Your task to perform on an android device: Go to Amazon Image 0: 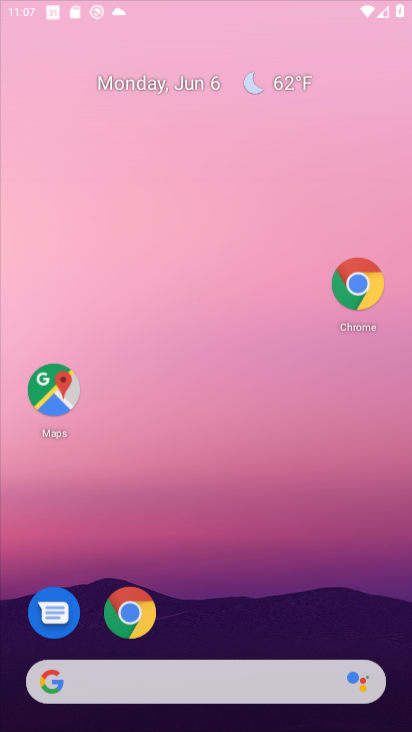
Step 0: click (25, 47)
Your task to perform on an android device: Go to Amazon Image 1: 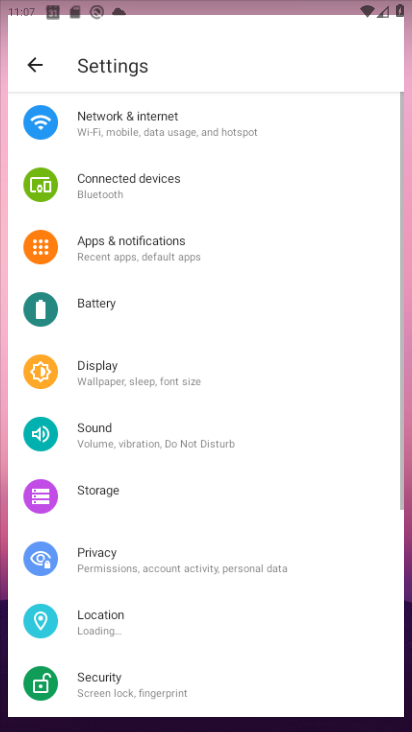
Step 1: drag from (272, 659) to (207, 66)
Your task to perform on an android device: Go to Amazon Image 2: 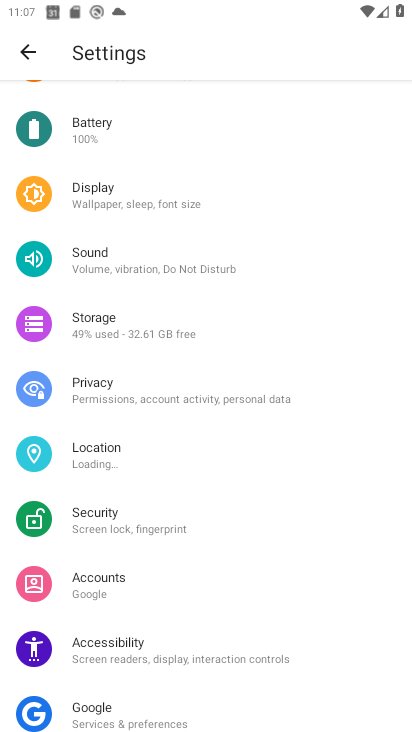
Step 2: press back button
Your task to perform on an android device: Go to Amazon Image 3: 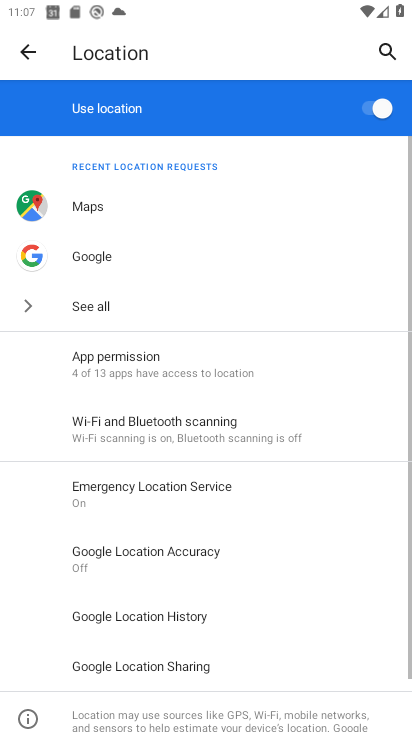
Step 3: click (35, 57)
Your task to perform on an android device: Go to Amazon Image 4: 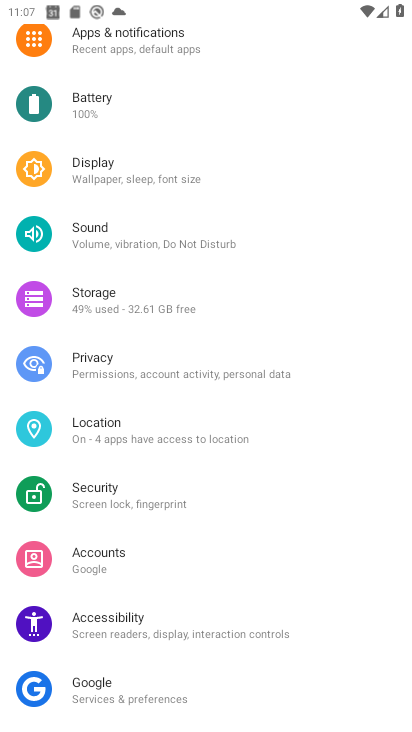
Step 4: press back button
Your task to perform on an android device: Go to Amazon Image 5: 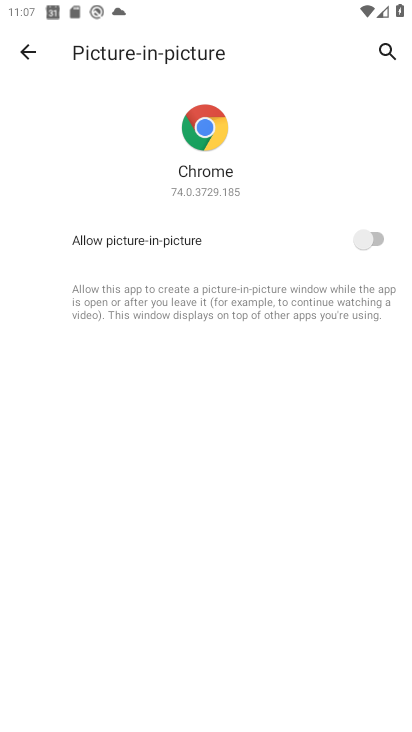
Step 5: click (27, 53)
Your task to perform on an android device: Go to Amazon Image 6: 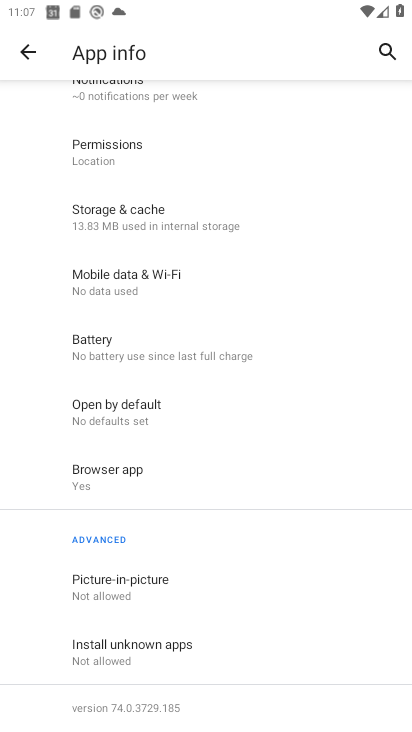
Step 6: click (29, 58)
Your task to perform on an android device: Go to Amazon Image 7: 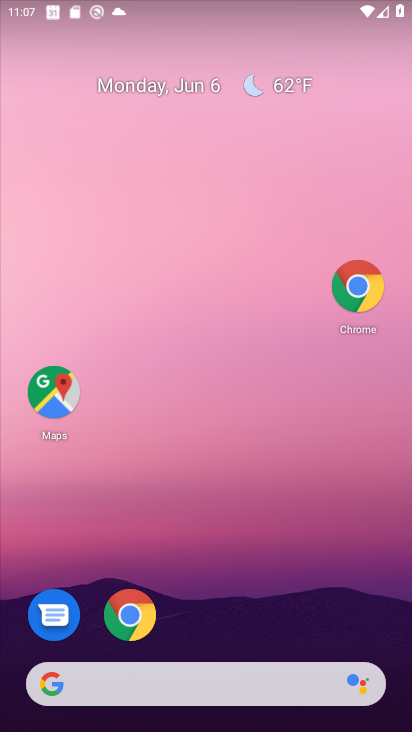
Step 7: drag from (219, 218) to (219, 123)
Your task to perform on an android device: Go to Amazon Image 8: 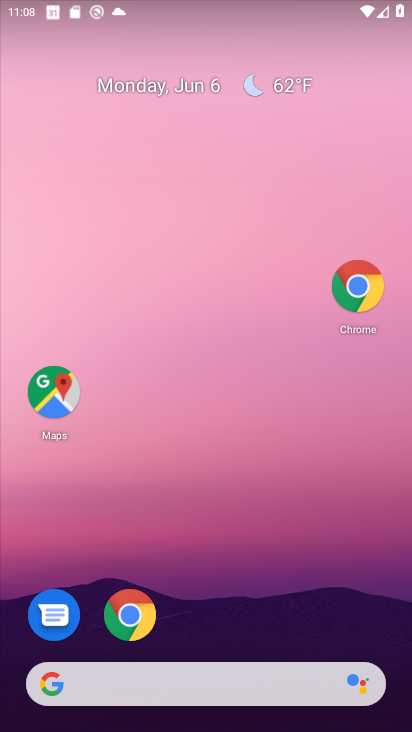
Step 8: drag from (283, 705) to (233, 242)
Your task to perform on an android device: Go to Amazon Image 9: 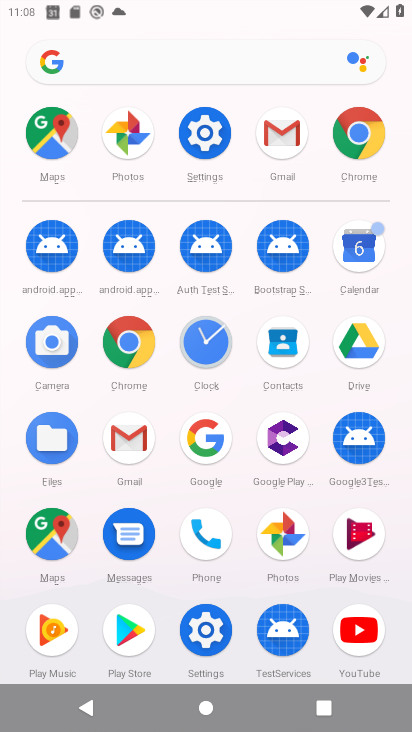
Step 9: click (364, 126)
Your task to perform on an android device: Go to Amazon Image 10: 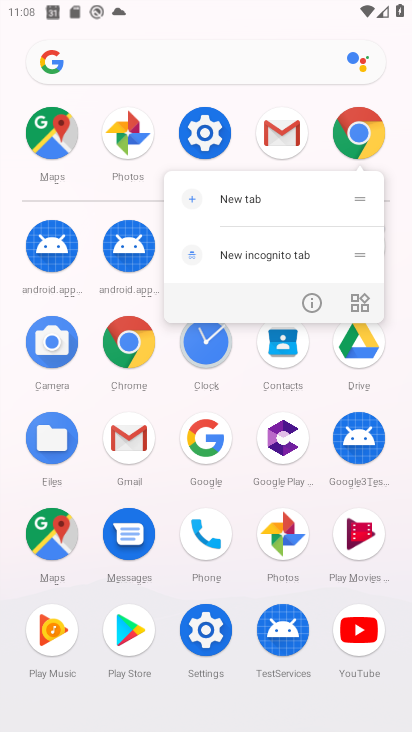
Step 10: click (346, 136)
Your task to perform on an android device: Go to Amazon Image 11: 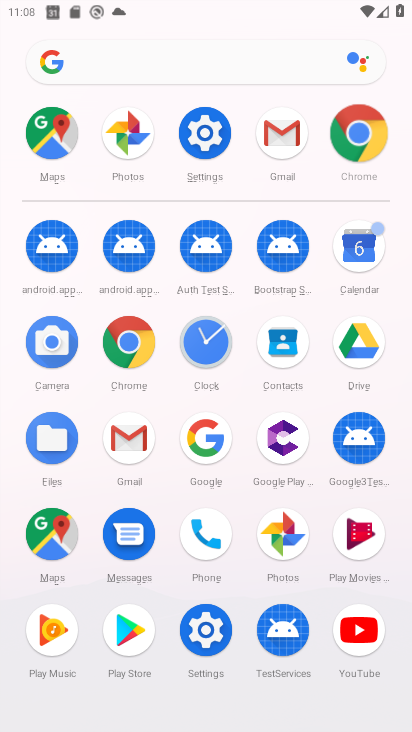
Step 11: click (346, 136)
Your task to perform on an android device: Go to Amazon Image 12: 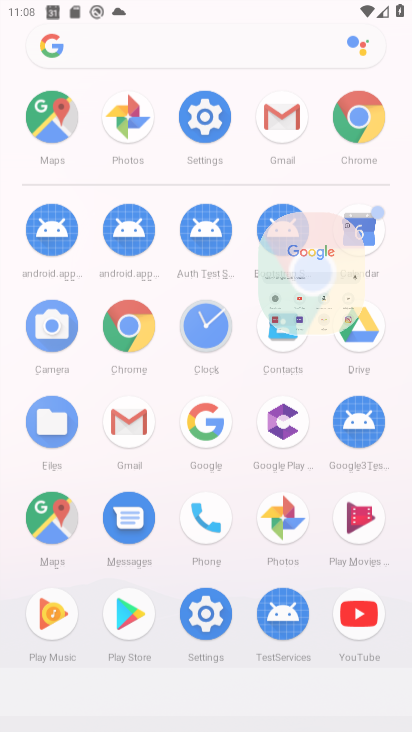
Step 12: click (349, 137)
Your task to perform on an android device: Go to Amazon Image 13: 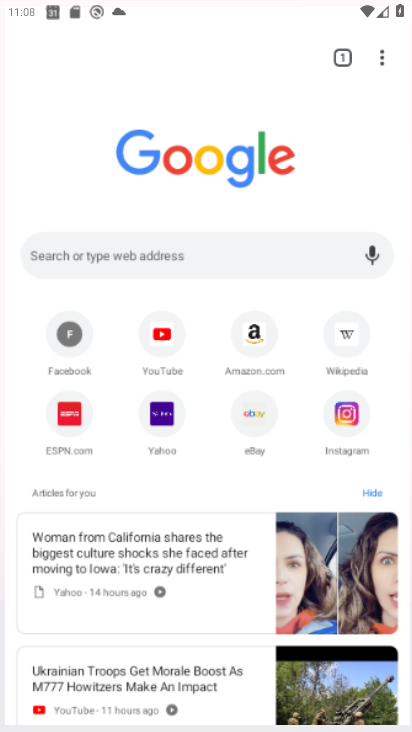
Step 13: click (355, 135)
Your task to perform on an android device: Go to Amazon Image 14: 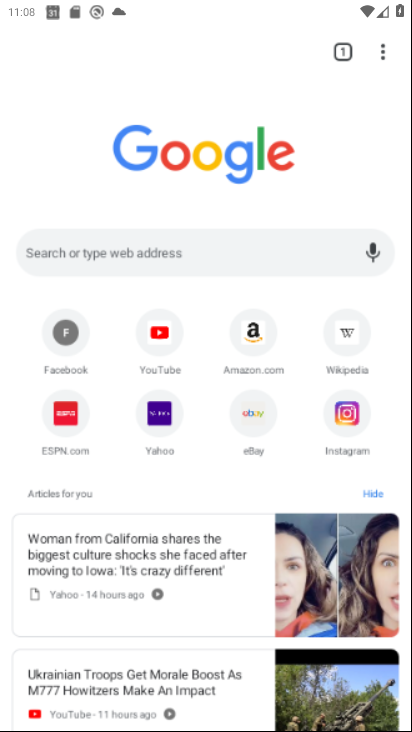
Step 14: click (361, 127)
Your task to perform on an android device: Go to Amazon Image 15: 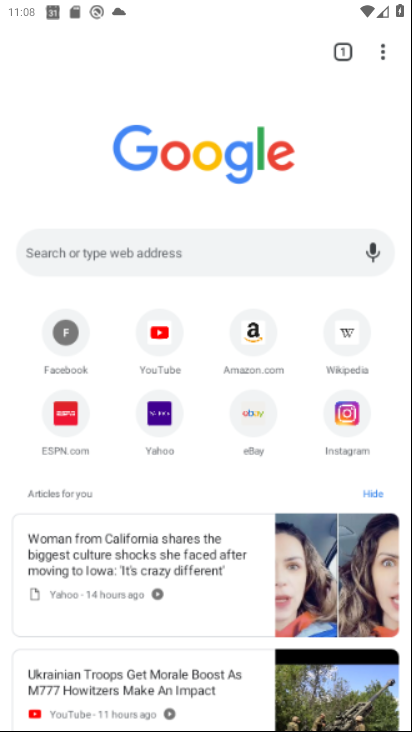
Step 15: click (367, 123)
Your task to perform on an android device: Go to Amazon Image 16: 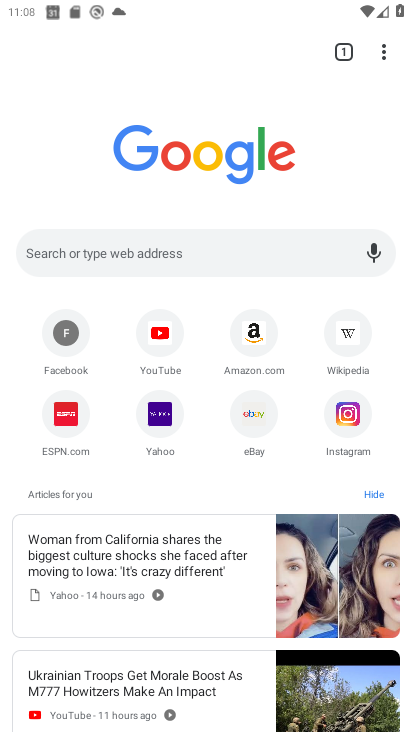
Step 16: click (233, 306)
Your task to perform on an android device: Go to Amazon Image 17: 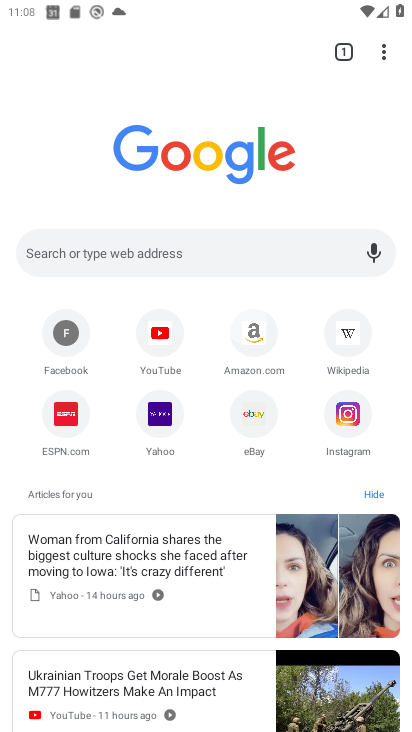
Step 17: click (234, 331)
Your task to perform on an android device: Go to Amazon Image 18: 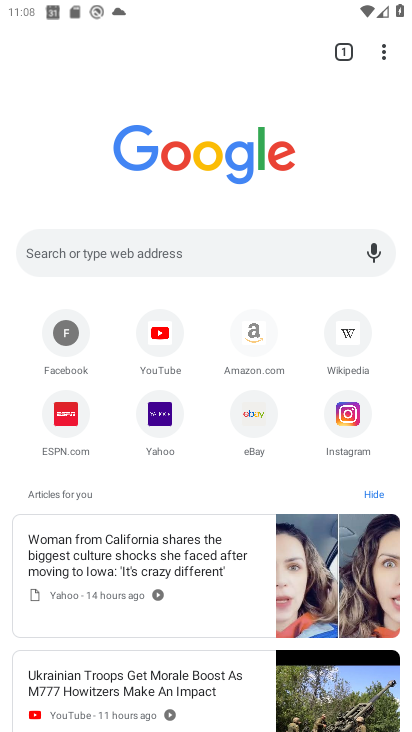
Step 18: click (241, 331)
Your task to perform on an android device: Go to Amazon Image 19: 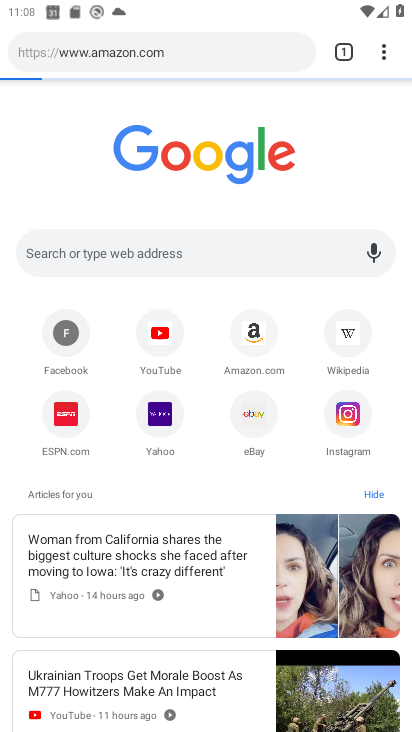
Step 19: click (238, 328)
Your task to perform on an android device: Go to Amazon Image 20: 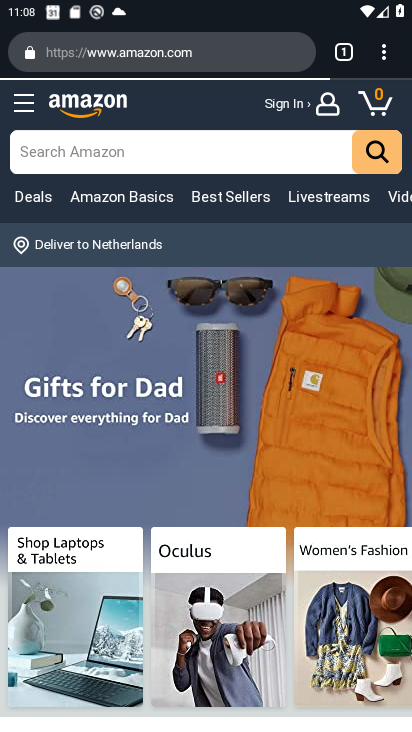
Step 20: task complete